Your task to perform on an android device: Do I have any events tomorrow? Image 0: 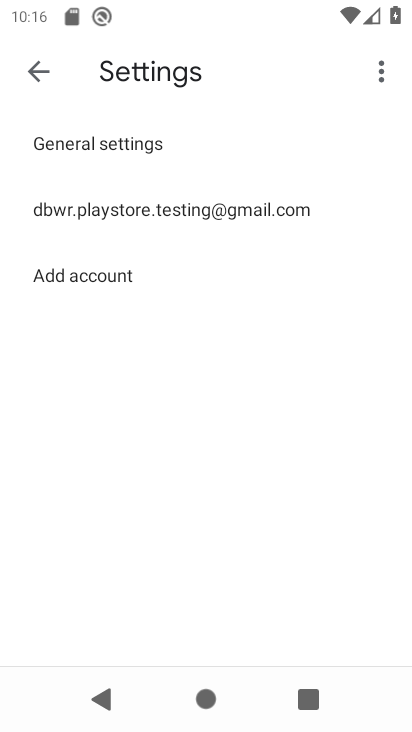
Step 0: press home button
Your task to perform on an android device: Do I have any events tomorrow? Image 1: 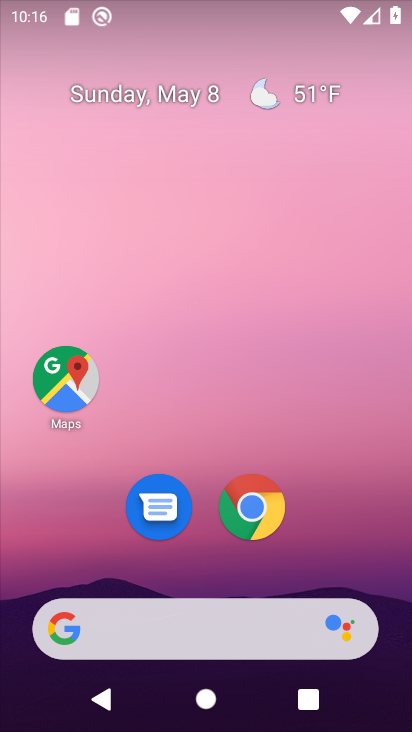
Step 1: drag from (210, 561) to (209, 21)
Your task to perform on an android device: Do I have any events tomorrow? Image 2: 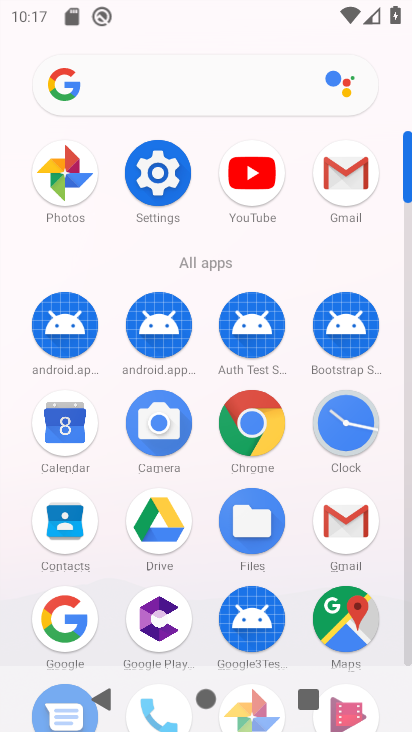
Step 2: click (64, 421)
Your task to perform on an android device: Do I have any events tomorrow? Image 3: 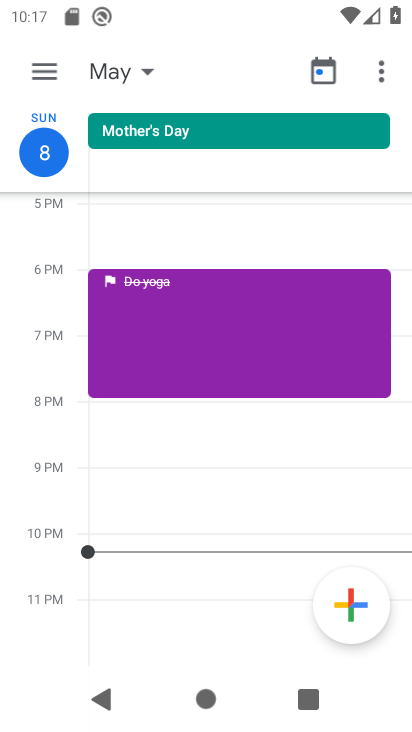
Step 3: click (71, 164)
Your task to perform on an android device: Do I have any events tomorrow? Image 4: 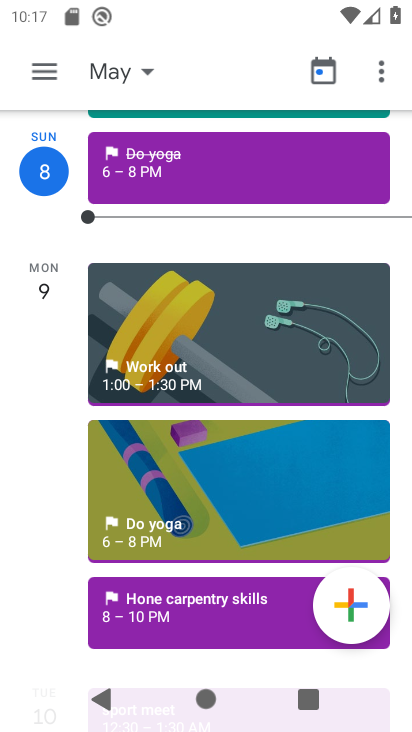
Step 4: click (55, 314)
Your task to perform on an android device: Do I have any events tomorrow? Image 5: 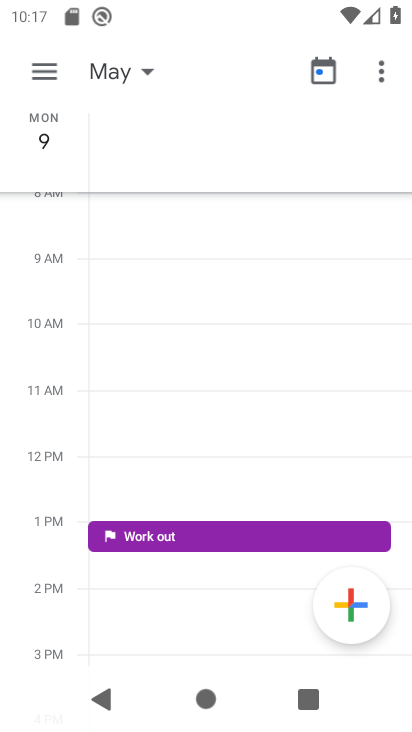
Step 5: task complete